Your task to perform on an android device: Search for vegetarian restaurants on Maps Image 0: 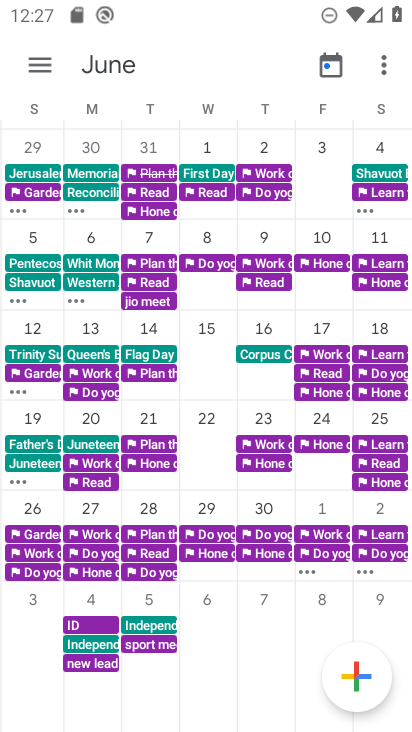
Step 0: press home button
Your task to perform on an android device: Search for vegetarian restaurants on Maps Image 1: 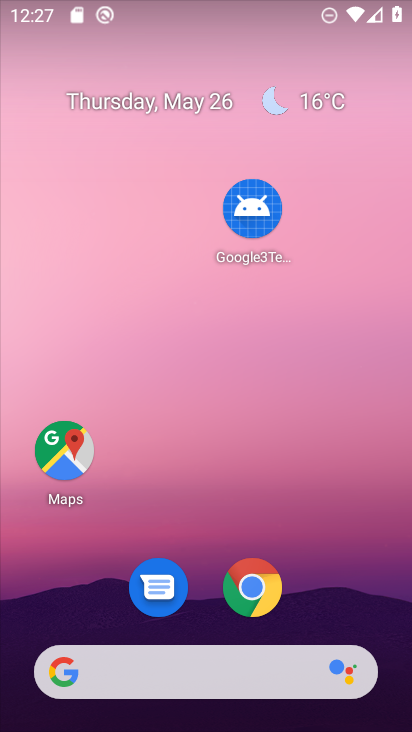
Step 1: click (53, 467)
Your task to perform on an android device: Search for vegetarian restaurants on Maps Image 2: 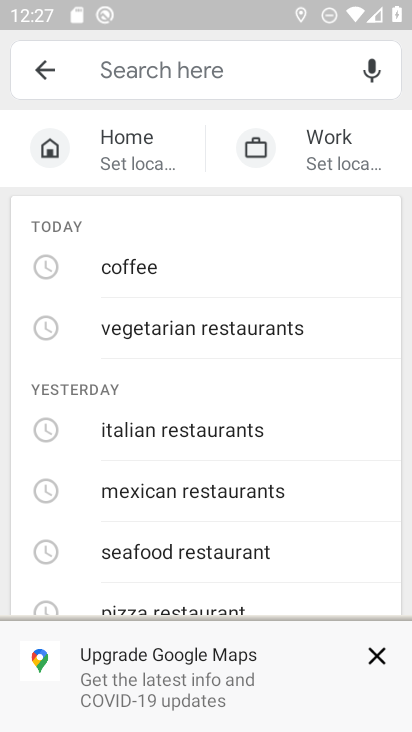
Step 2: click (149, 333)
Your task to perform on an android device: Search for vegetarian restaurants on Maps Image 3: 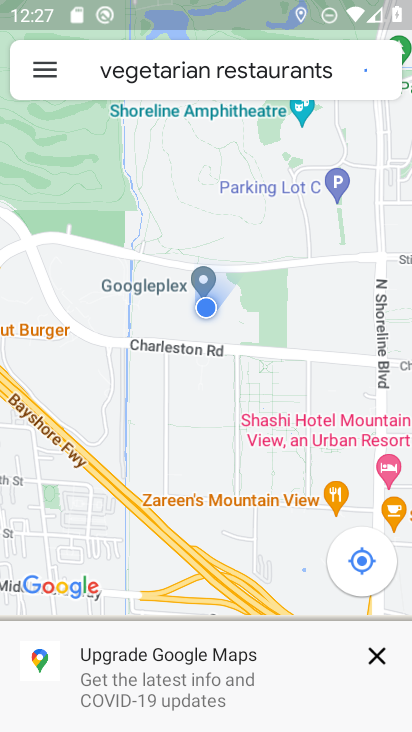
Step 3: task complete